Your task to perform on an android device: Do I have any events tomorrow? Image 0: 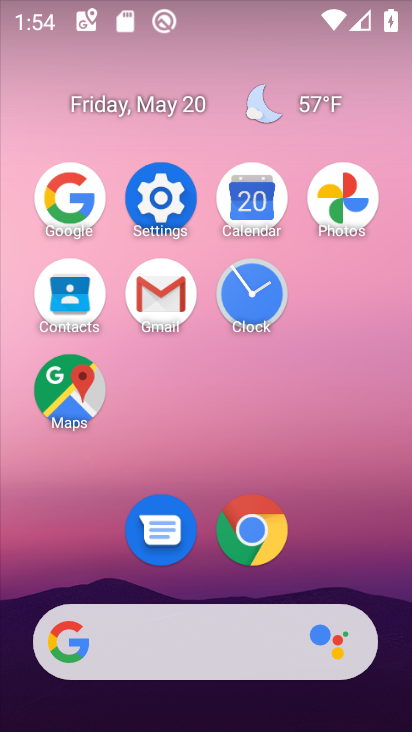
Step 0: click (267, 212)
Your task to perform on an android device: Do I have any events tomorrow? Image 1: 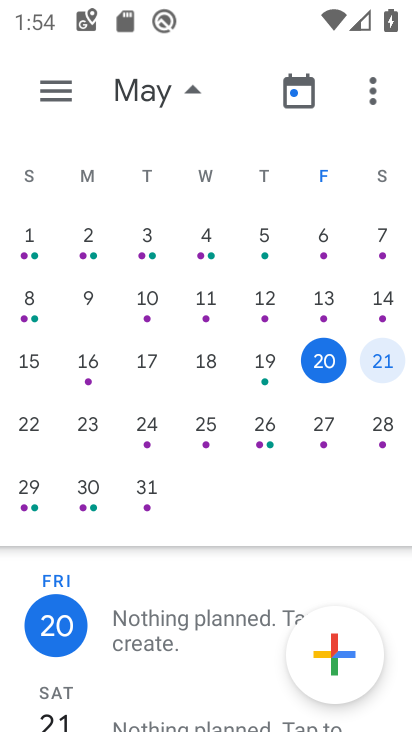
Step 1: click (384, 375)
Your task to perform on an android device: Do I have any events tomorrow? Image 2: 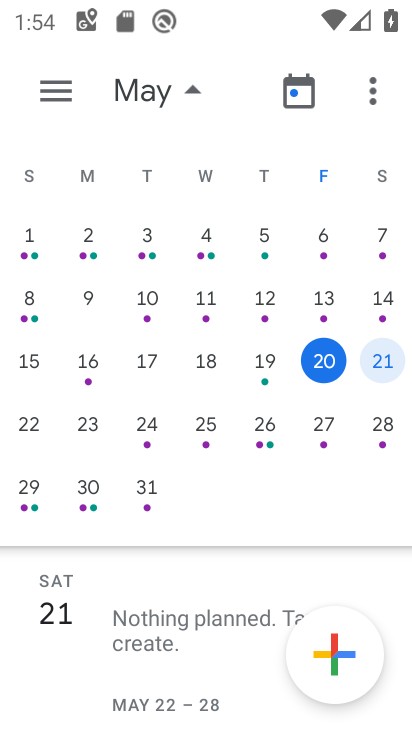
Step 2: click (385, 370)
Your task to perform on an android device: Do I have any events tomorrow? Image 3: 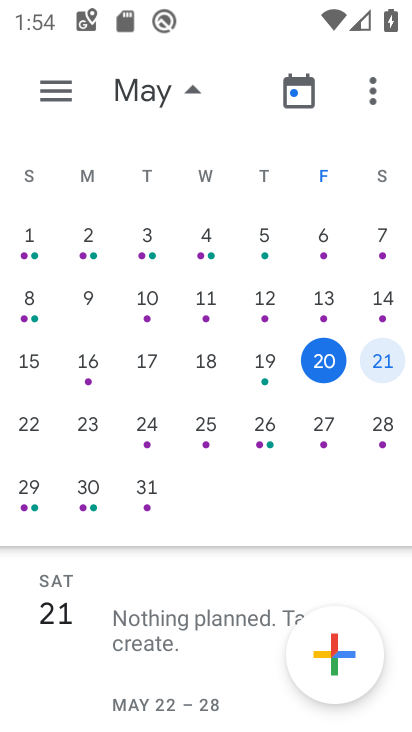
Step 3: click (383, 358)
Your task to perform on an android device: Do I have any events tomorrow? Image 4: 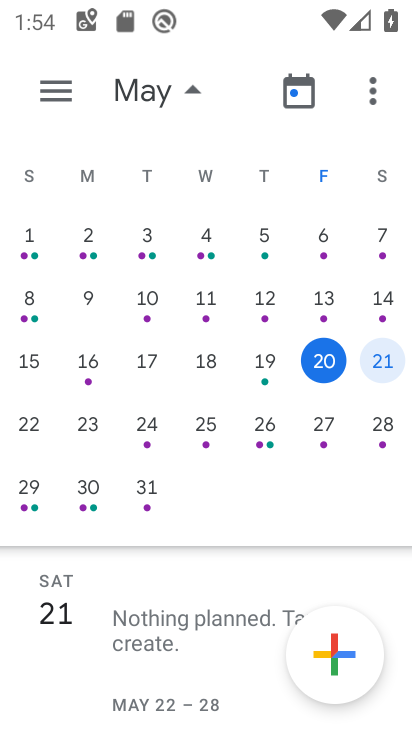
Step 4: click (171, 639)
Your task to perform on an android device: Do I have any events tomorrow? Image 5: 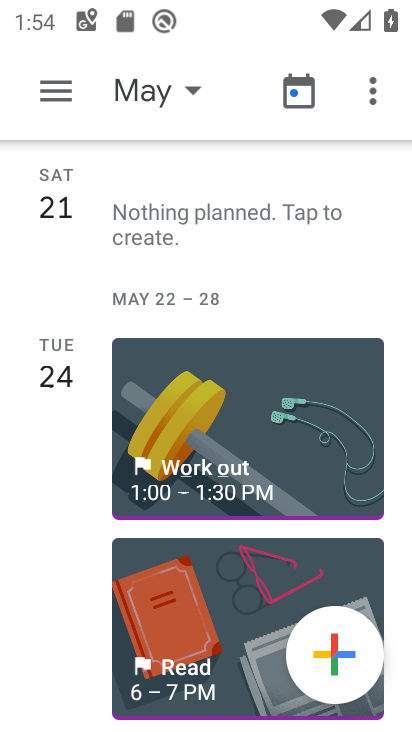
Step 5: task complete